Your task to perform on an android device: Go to Yahoo.com Image 0: 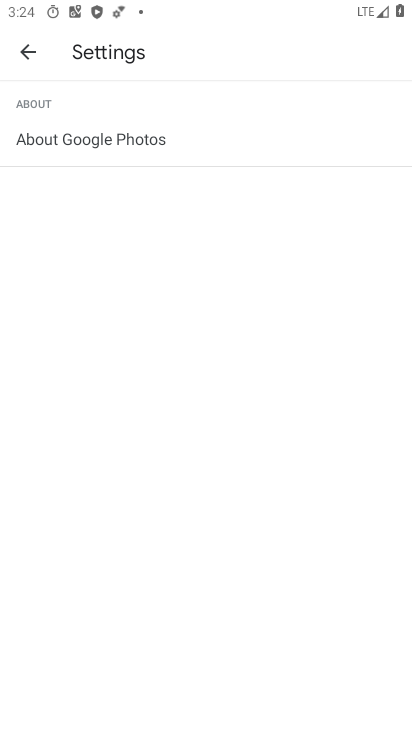
Step 0: press home button
Your task to perform on an android device: Go to Yahoo.com Image 1: 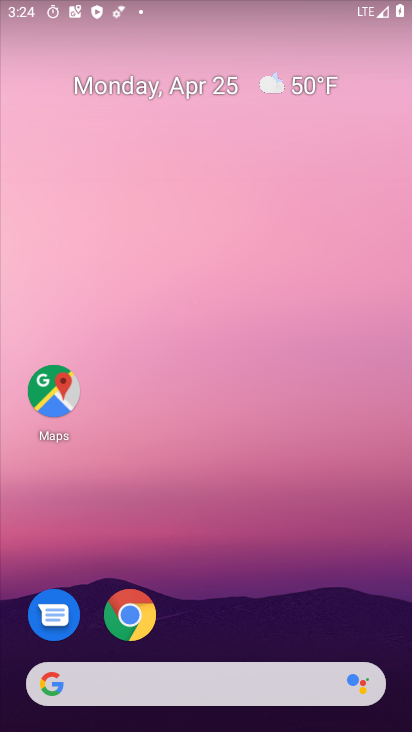
Step 1: drag from (215, 723) to (212, 305)
Your task to perform on an android device: Go to Yahoo.com Image 2: 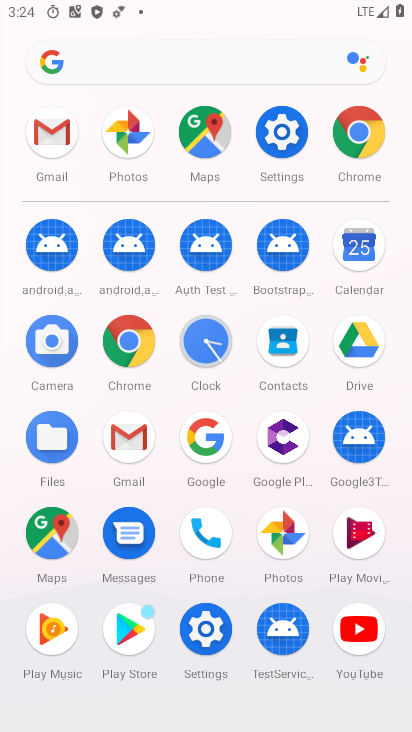
Step 2: click (122, 343)
Your task to perform on an android device: Go to Yahoo.com Image 3: 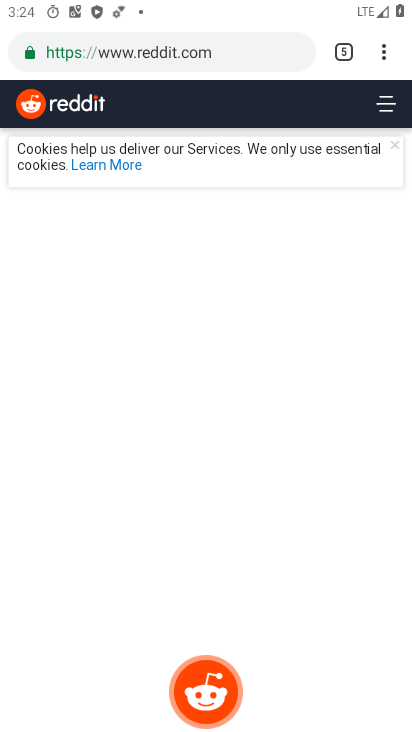
Step 3: drag from (384, 54) to (219, 170)
Your task to perform on an android device: Go to Yahoo.com Image 4: 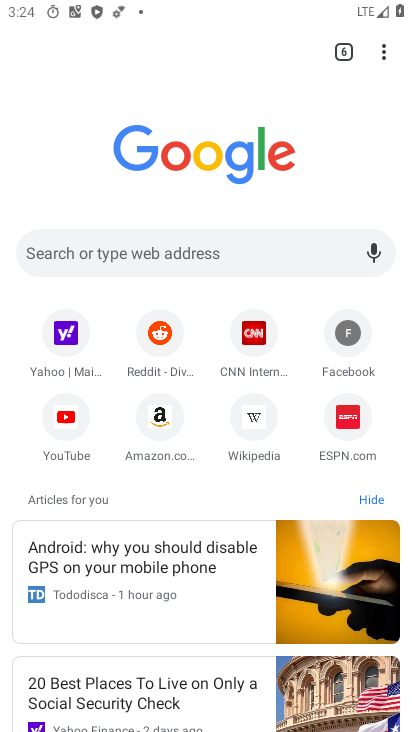
Step 4: click (196, 253)
Your task to perform on an android device: Go to Yahoo.com Image 5: 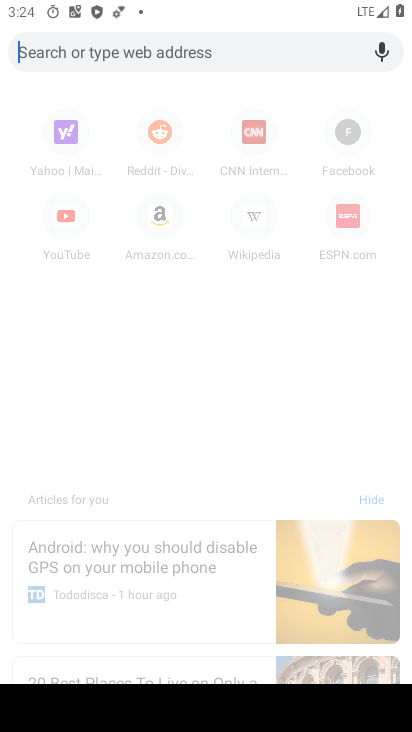
Step 5: type "Yahoo.com"
Your task to perform on an android device: Go to Yahoo.com Image 6: 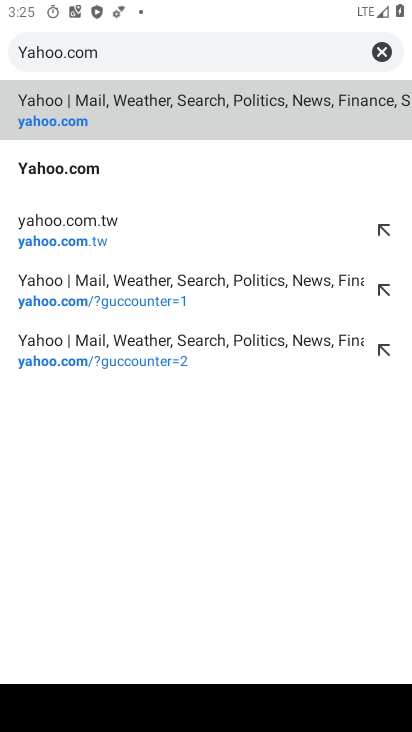
Step 6: click (121, 103)
Your task to perform on an android device: Go to Yahoo.com Image 7: 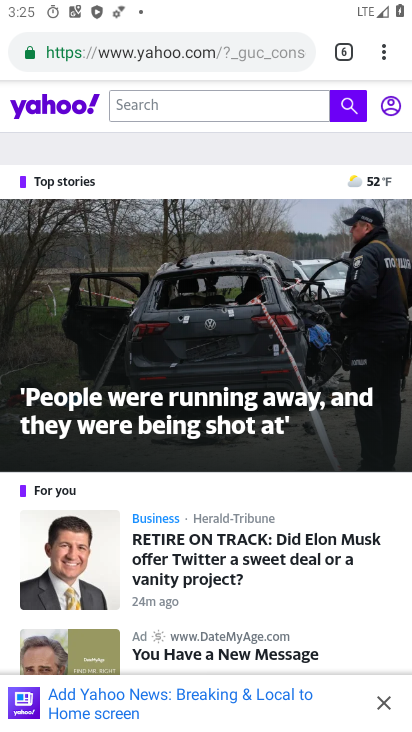
Step 7: task complete